Your task to perform on an android device: Open Google Maps Image 0: 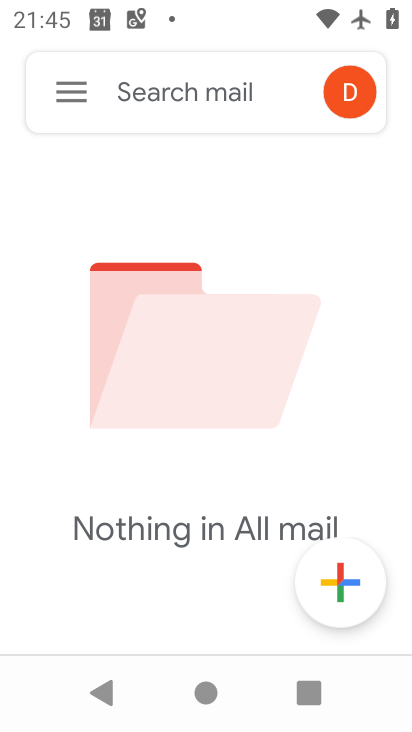
Step 0: press home button
Your task to perform on an android device: Open Google Maps Image 1: 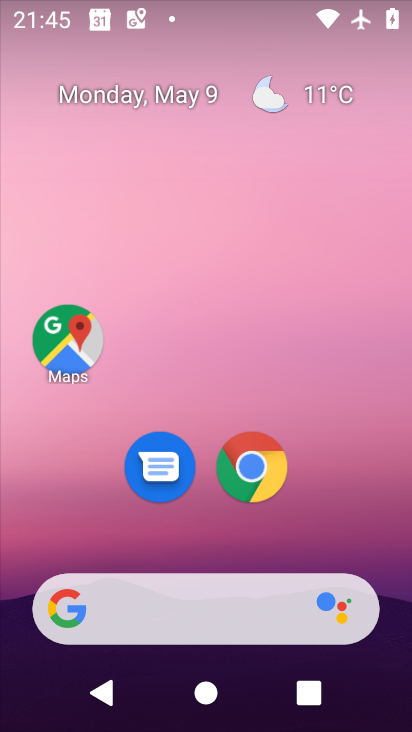
Step 1: drag from (308, 516) to (306, 325)
Your task to perform on an android device: Open Google Maps Image 2: 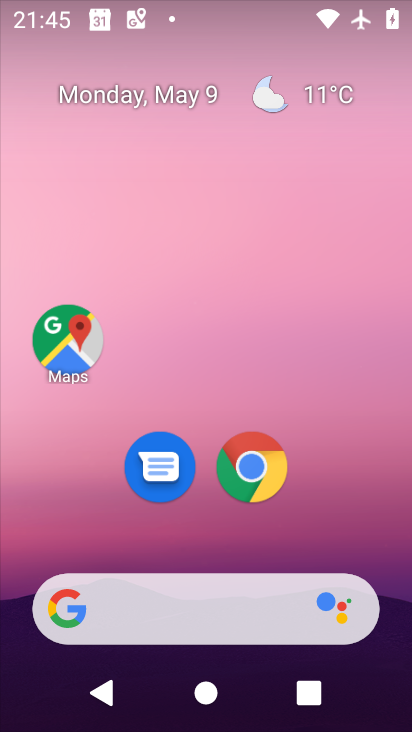
Step 2: drag from (320, 451) to (315, 266)
Your task to perform on an android device: Open Google Maps Image 3: 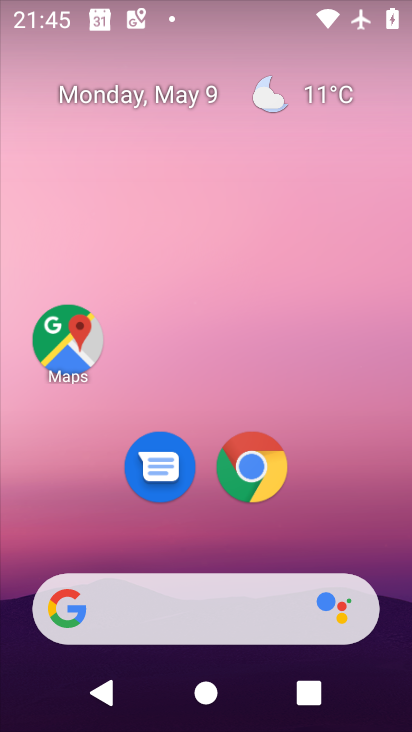
Step 3: click (60, 325)
Your task to perform on an android device: Open Google Maps Image 4: 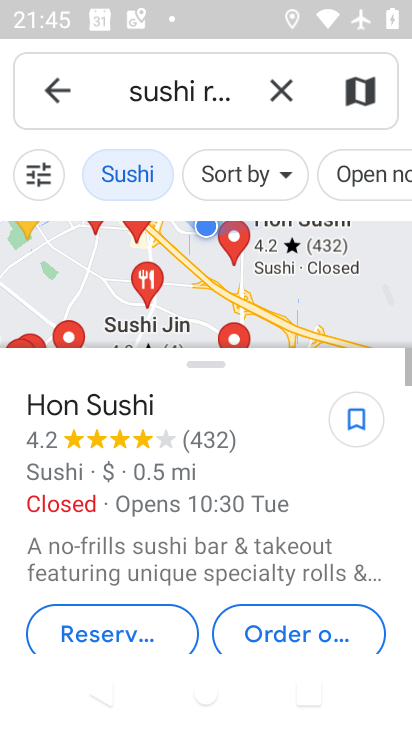
Step 4: click (272, 101)
Your task to perform on an android device: Open Google Maps Image 5: 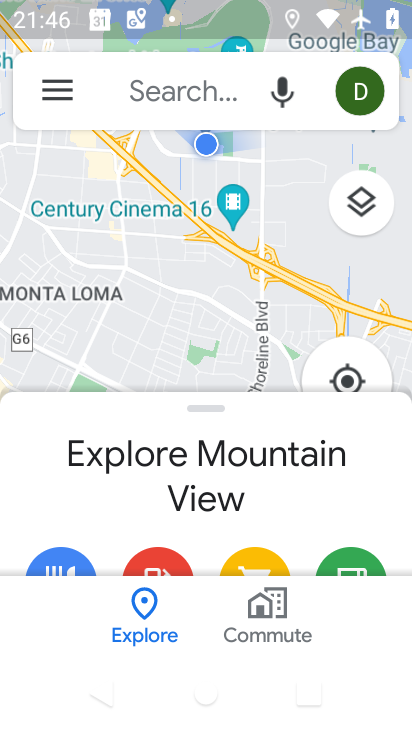
Step 5: task complete